Your task to perform on an android device: turn off smart reply in the gmail app Image 0: 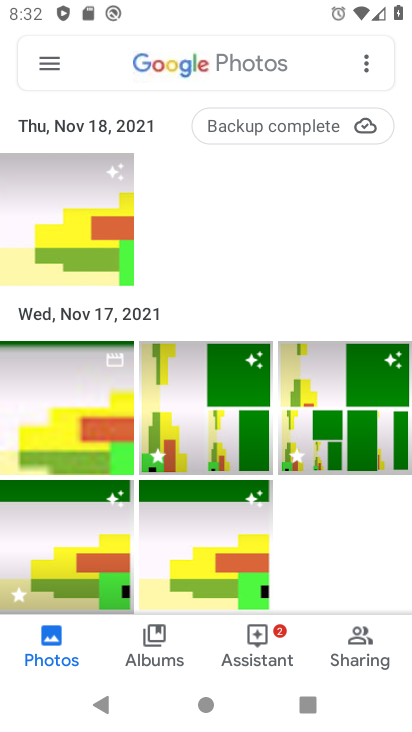
Step 0: press back button
Your task to perform on an android device: turn off smart reply in the gmail app Image 1: 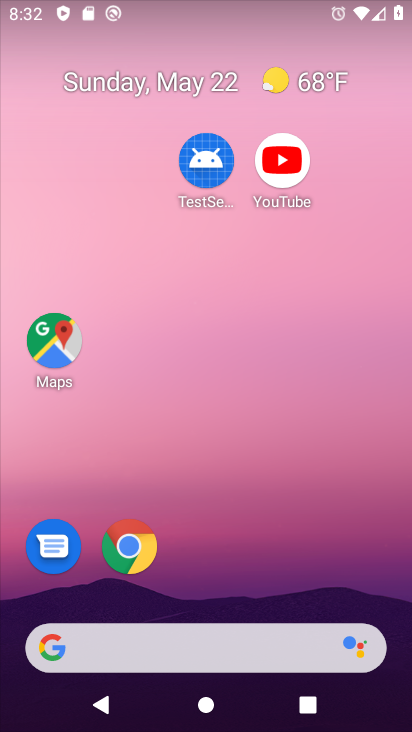
Step 1: drag from (277, 701) to (148, 149)
Your task to perform on an android device: turn off smart reply in the gmail app Image 2: 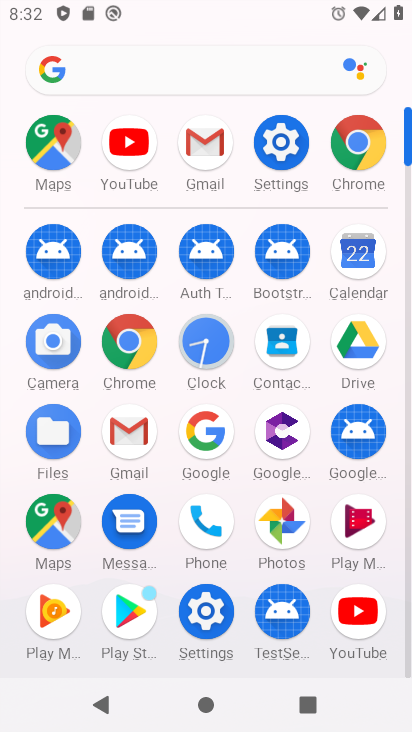
Step 2: click (122, 431)
Your task to perform on an android device: turn off smart reply in the gmail app Image 3: 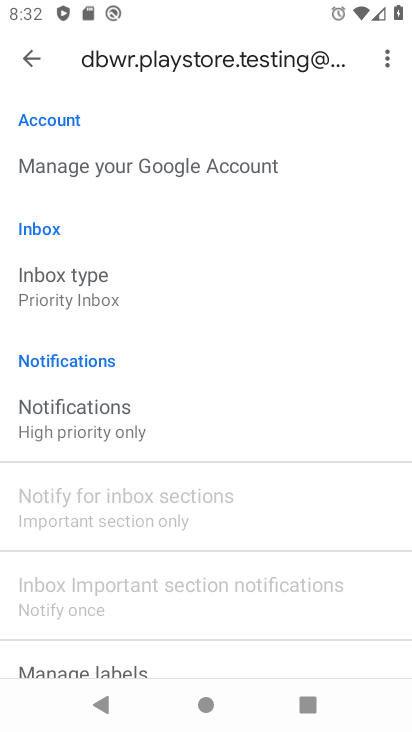
Step 3: drag from (122, 421) to (93, 128)
Your task to perform on an android device: turn off smart reply in the gmail app Image 4: 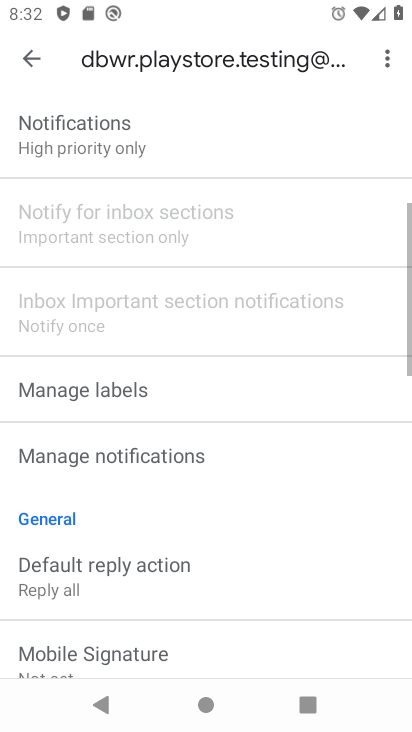
Step 4: drag from (142, 459) to (143, 197)
Your task to perform on an android device: turn off smart reply in the gmail app Image 5: 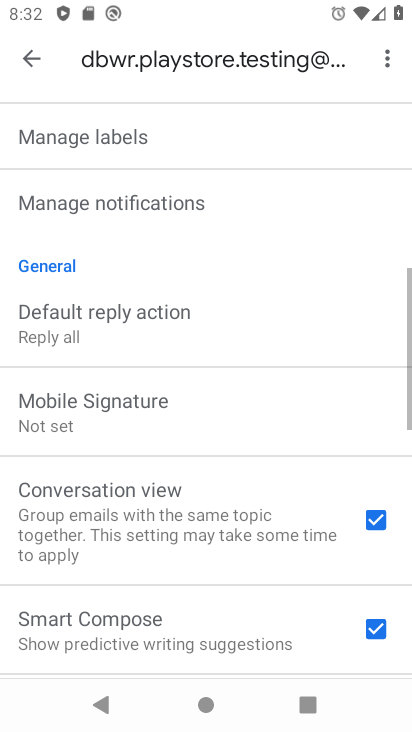
Step 5: drag from (203, 549) to (201, 161)
Your task to perform on an android device: turn off smart reply in the gmail app Image 6: 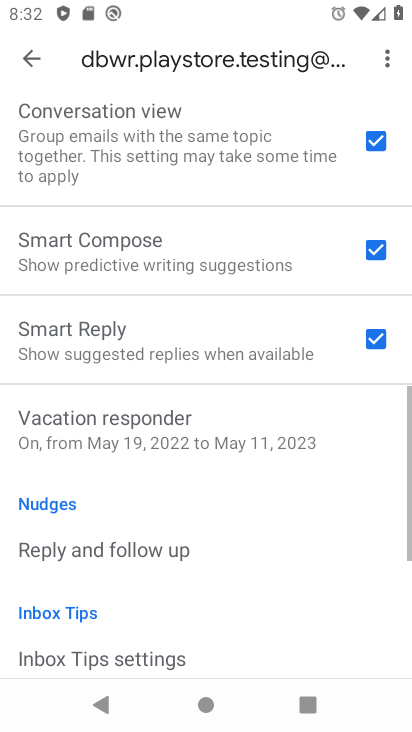
Step 6: drag from (211, 586) to (193, 209)
Your task to perform on an android device: turn off smart reply in the gmail app Image 7: 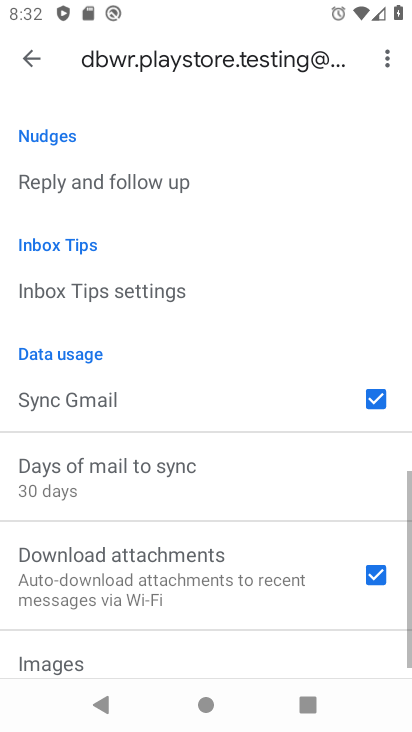
Step 7: click (247, 257)
Your task to perform on an android device: turn off smart reply in the gmail app Image 8: 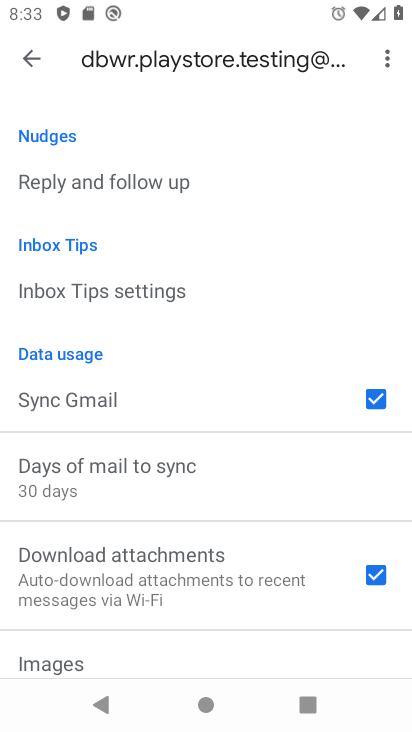
Step 8: drag from (195, 194) to (195, 478)
Your task to perform on an android device: turn off smart reply in the gmail app Image 9: 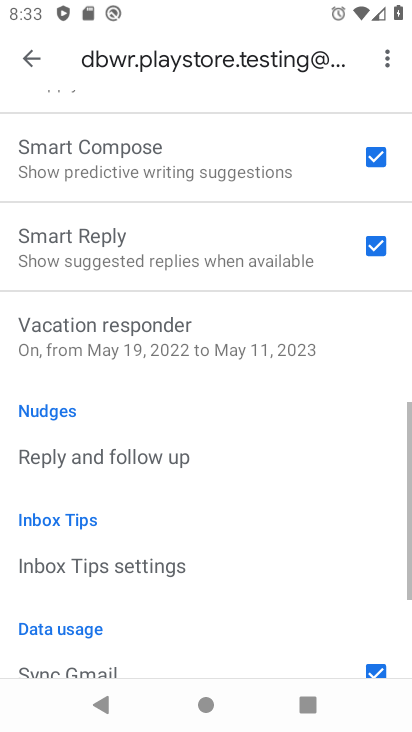
Step 9: drag from (159, 268) to (153, 499)
Your task to perform on an android device: turn off smart reply in the gmail app Image 10: 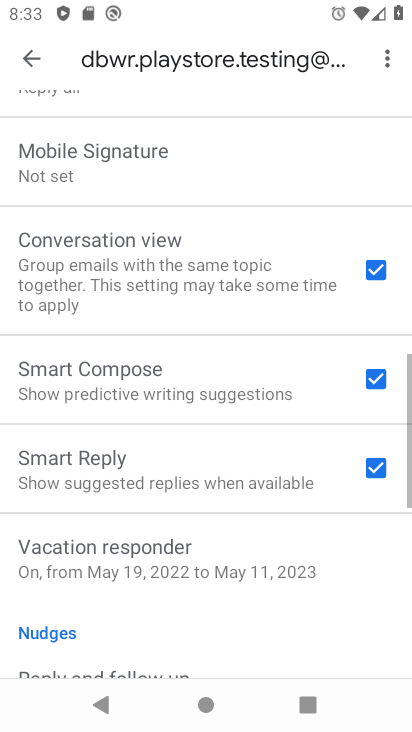
Step 10: drag from (141, 279) to (160, 412)
Your task to perform on an android device: turn off smart reply in the gmail app Image 11: 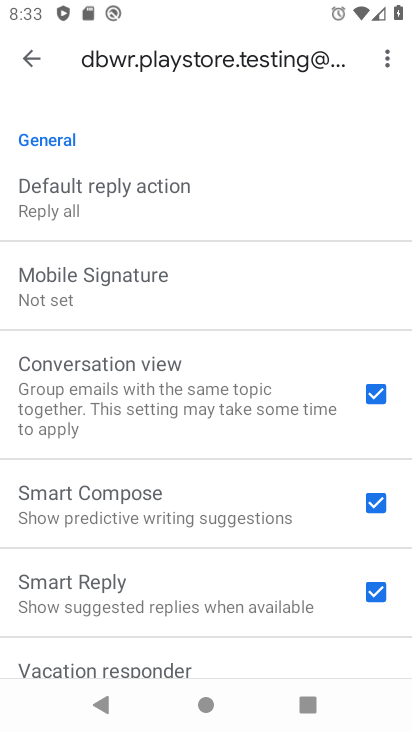
Step 11: click (376, 601)
Your task to perform on an android device: turn off smart reply in the gmail app Image 12: 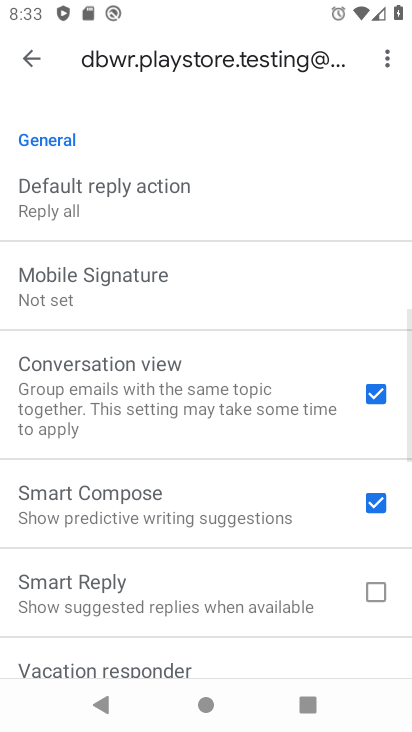
Step 12: task complete